Your task to perform on an android device: Search for pizza restaurants on Maps Image 0: 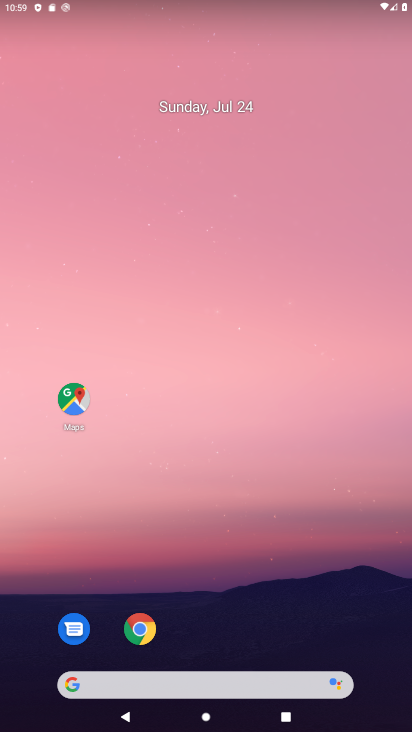
Step 0: drag from (343, 38) to (219, 235)
Your task to perform on an android device: Search for pizza restaurants on Maps Image 1: 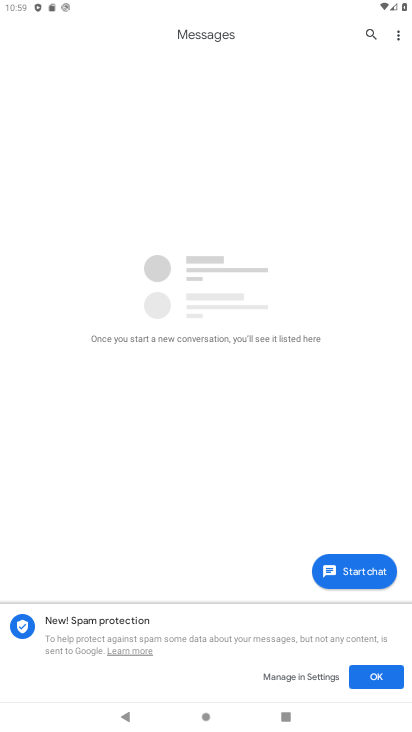
Step 1: press home button
Your task to perform on an android device: Search for pizza restaurants on Maps Image 2: 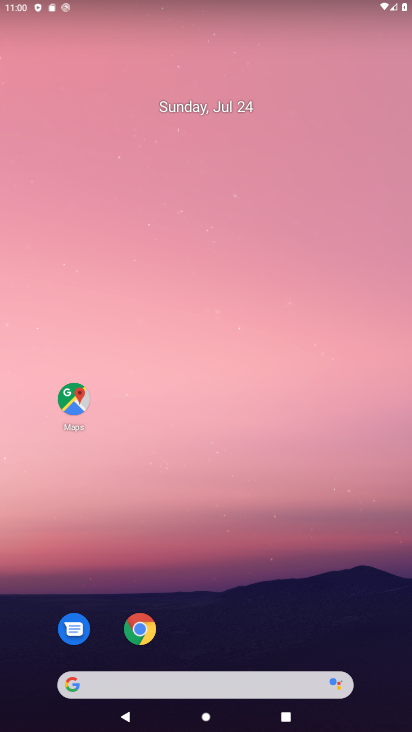
Step 2: click (64, 393)
Your task to perform on an android device: Search for pizza restaurants on Maps Image 3: 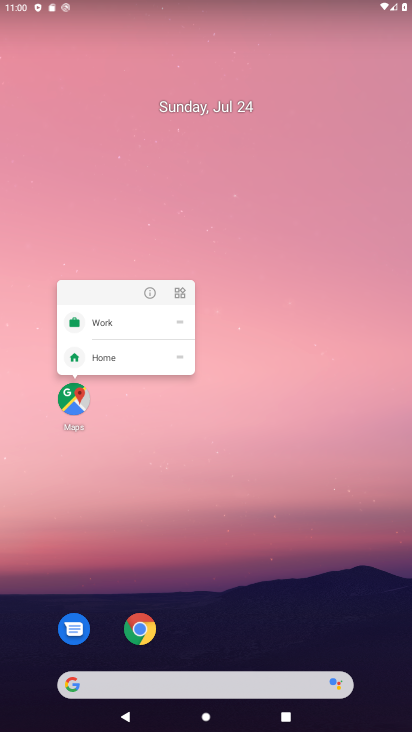
Step 3: click (62, 414)
Your task to perform on an android device: Search for pizza restaurants on Maps Image 4: 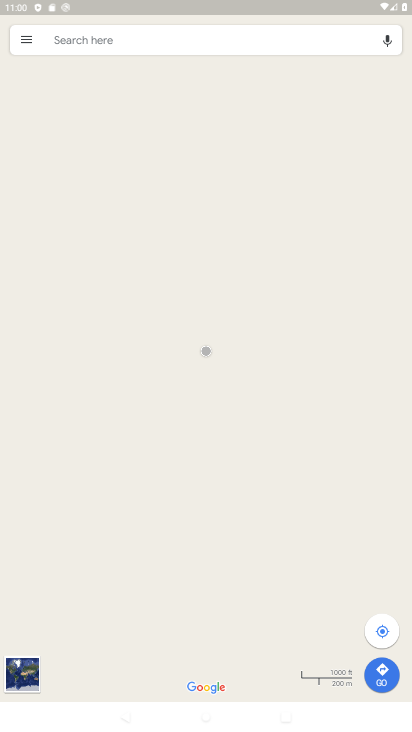
Step 4: click (151, 37)
Your task to perform on an android device: Search for pizza restaurants on Maps Image 5: 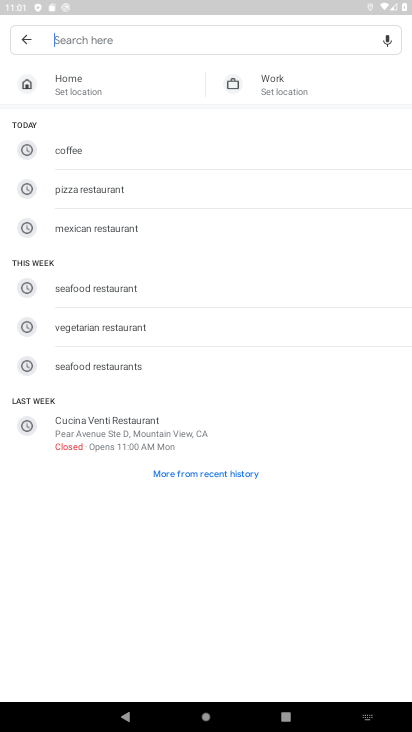
Step 5: type "pizza restaurants"
Your task to perform on an android device: Search for pizza restaurants on Maps Image 6: 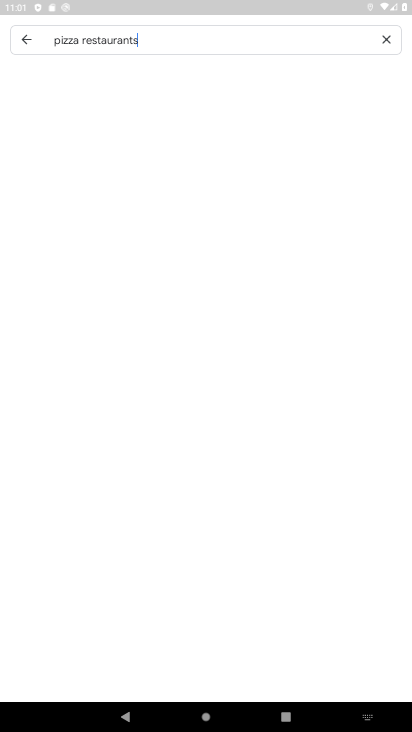
Step 6: type ""
Your task to perform on an android device: Search for pizza restaurants on Maps Image 7: 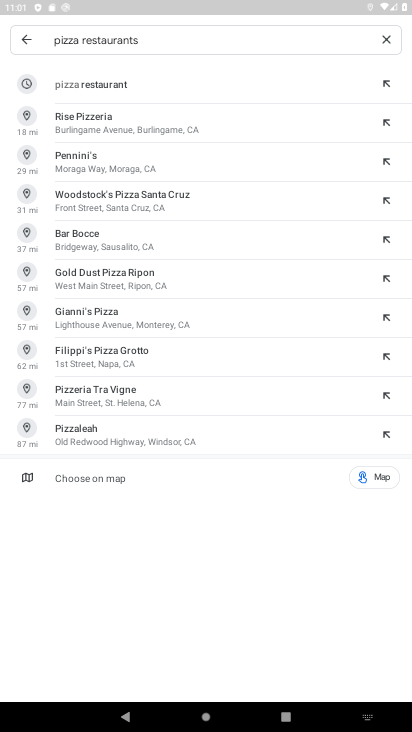
Step 7: click (80, 73)
Your task to perform on an android device: Search for pizza restaurants on Maps Image 8: 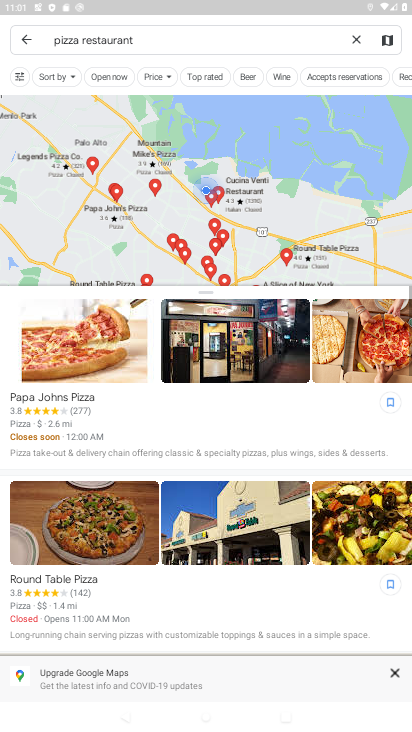
Step 8: task complete